Your task to perform on an android device: Open Yahoo.com Image 0: 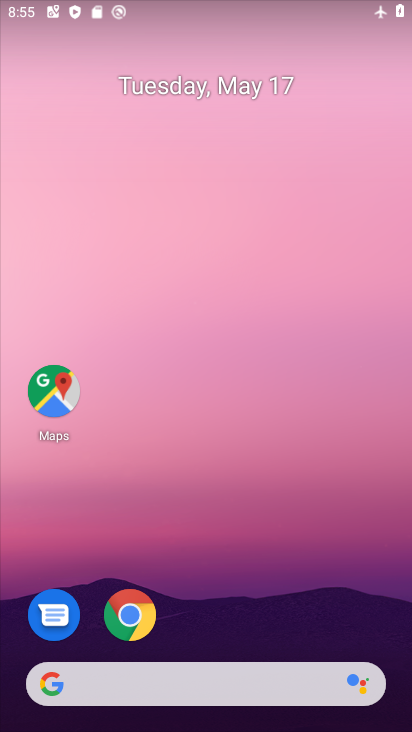
Step 0: drag from (216, 603) to (357, 132)
Your task to perform on an android device: Open Yahoo.com Image 1: 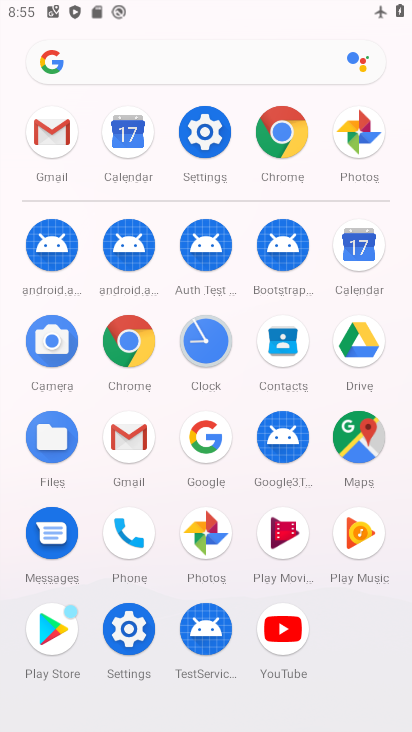
Step 1: click (274, 134)
Your task to perform on an android device: Open Yahoo.com Image 2: 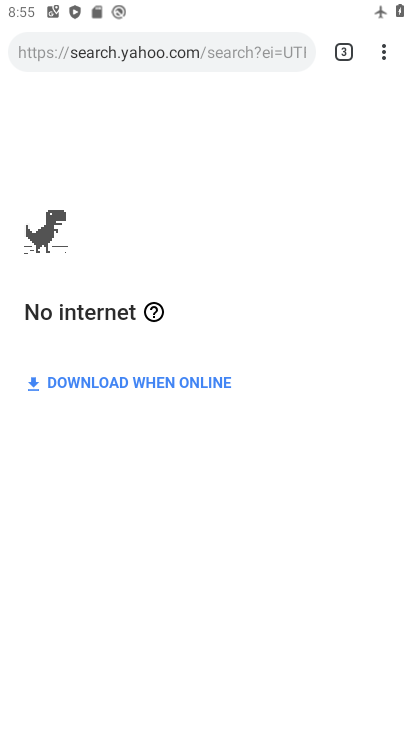
Step 2: click (383, 46)
Your task to perform on an android device: Open Yahoo.com Image 3: 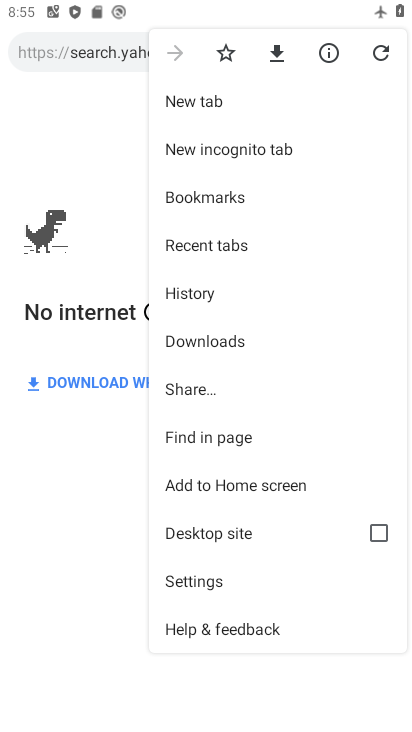
Step 3: click (214, 101)
Your task to perform on an android device: Open Yahoo.com Image 4: 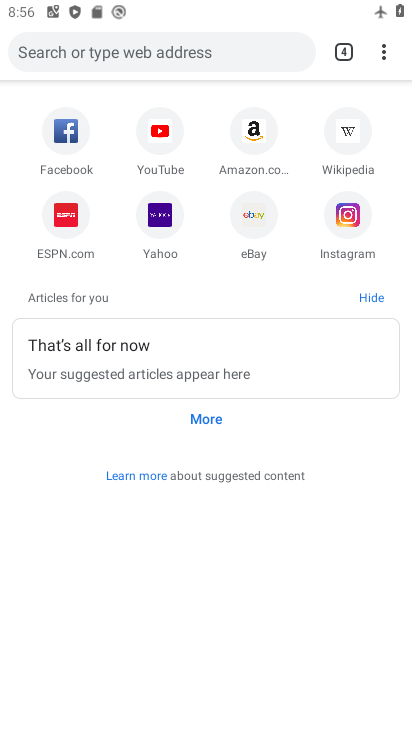
Step 4: click (156, 218)
Your task to perform on an android device: Open Yahoo.com Image 5: 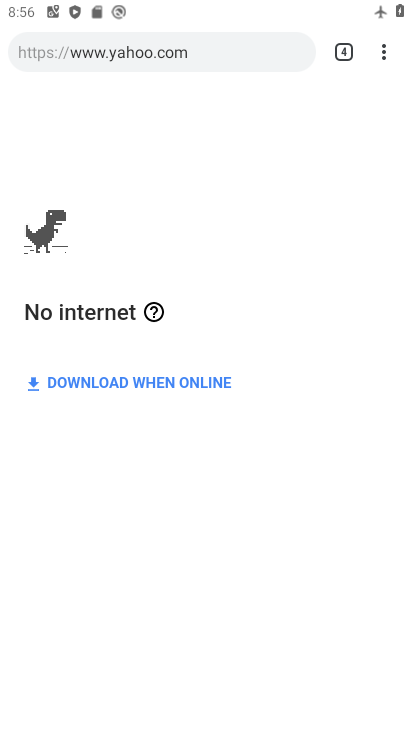
Step 5: task complete